Your task to perform on an android device: check the backup settings in the google photos Image 0: 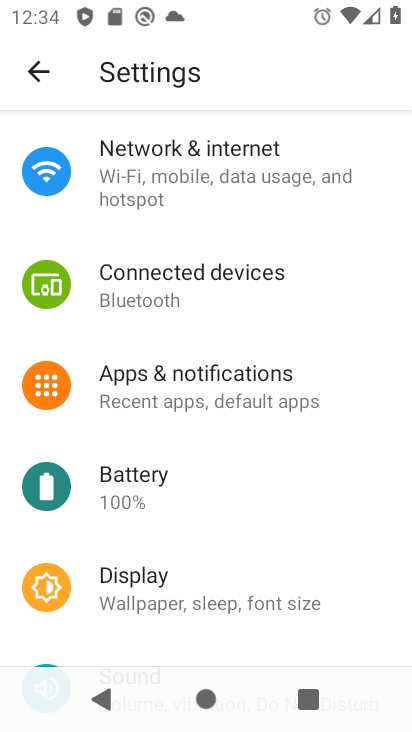
Step 0: press home button
Your task to perform on an android device: check the backup settings in the google photos Image 1: 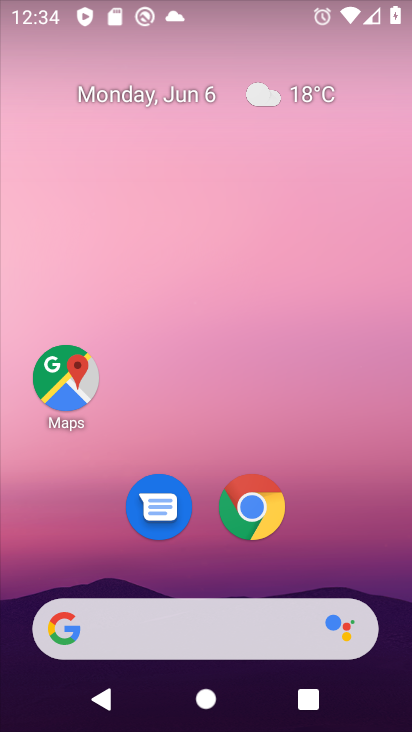
Step 1: drag from (241, 572) to (242, 19)
Your task to perform on an android device: check the backup settings in the google photos Image 2: 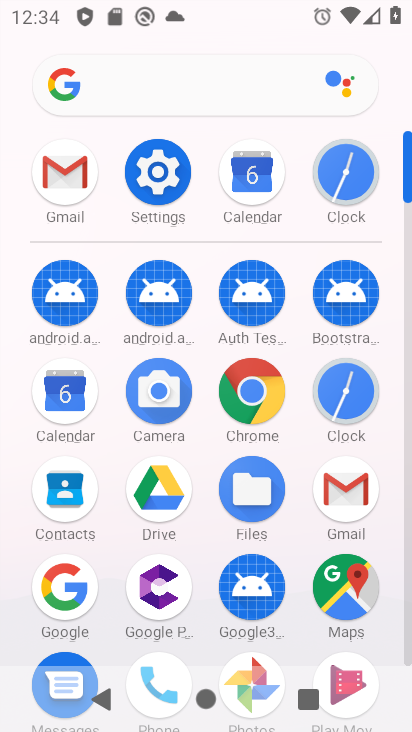
Step 2: drag from (193, 608) to (216, 152)
Your task to perform on an android device: check the backup settings in the google photos Image 3: 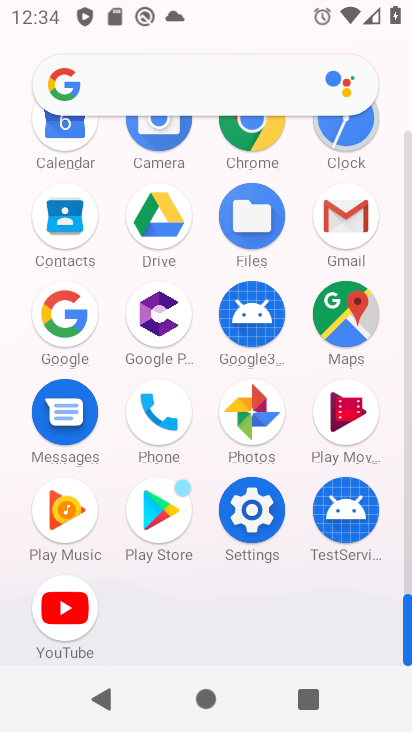
Step 3: click (257, 431)
Your task to perform on an android device: check the backup settings in the google photos Image 4: 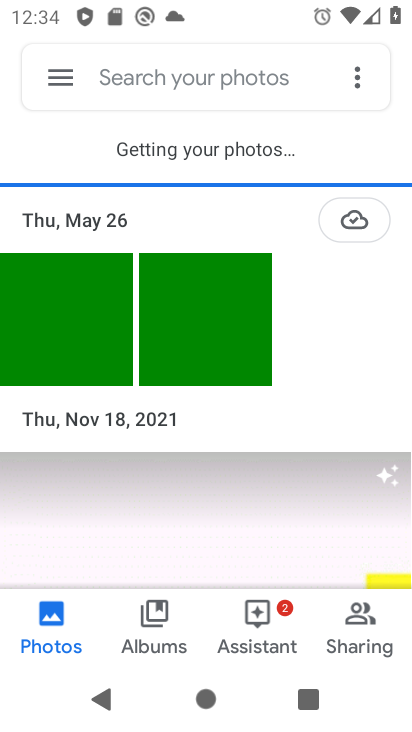
Step 4: click (47, 82)
Your task to perform on an android device: check the backup settings in the google photos Image 5: 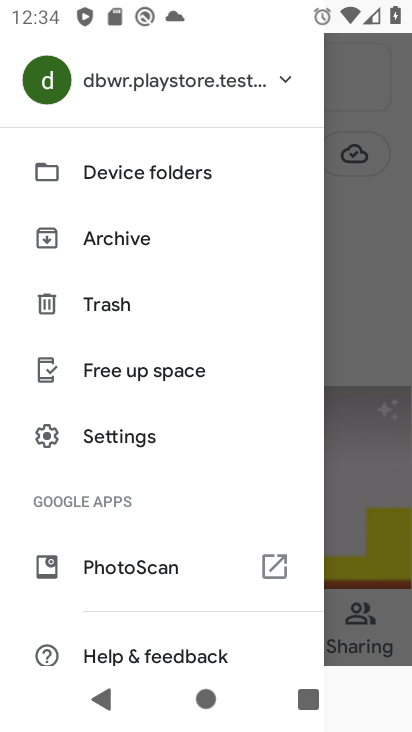
Step 5: click (138, 442)
Your task to perform on an android device: check the backup settings in the google photos Image 6: 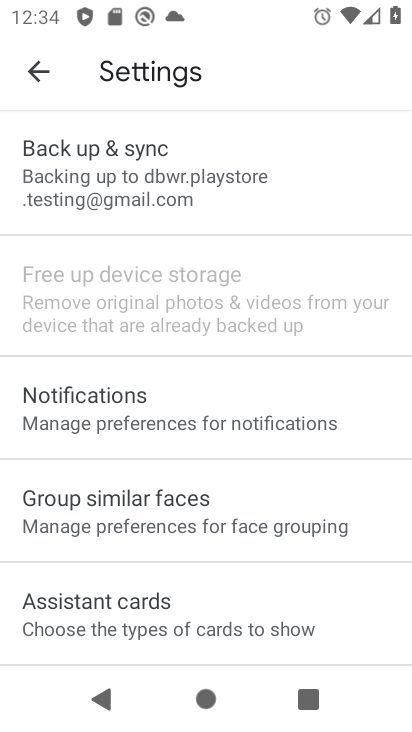
Step 6: click (153, 176)
Your task to perform on an android device: check the backup settings in the google photos Image 7: 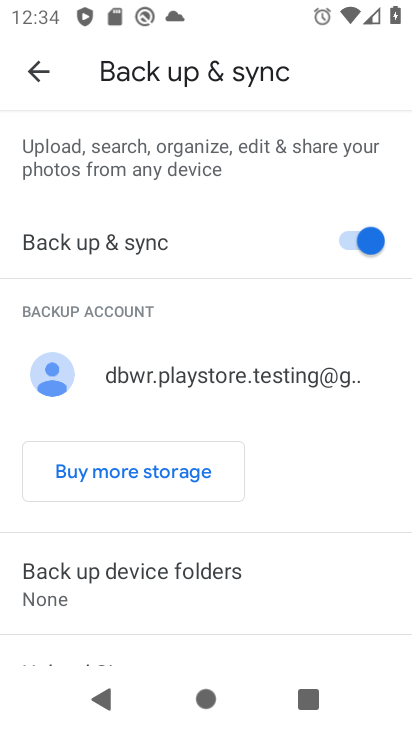
Step 7: task complete